Your task to perform on an android device: Search for pizza restaurants on Maps Image 0: 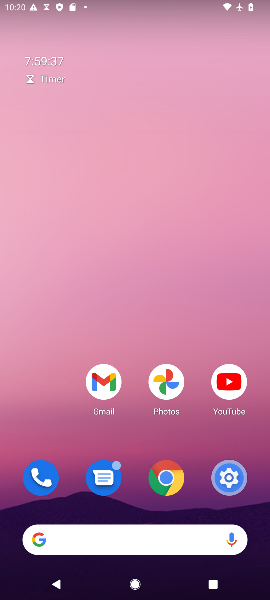
Step 0: drag from (205, 443) to (186, 51)
Your task to perform on an android device: Search for pizza restaurants on Maps Image 1: 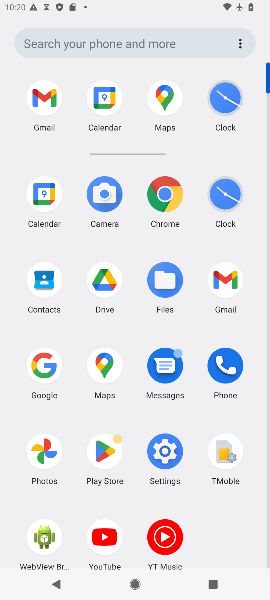
Step 1: click (103, 370)
Your task to perform on an android device: Search for pizza restaurants on Maps Image 2: 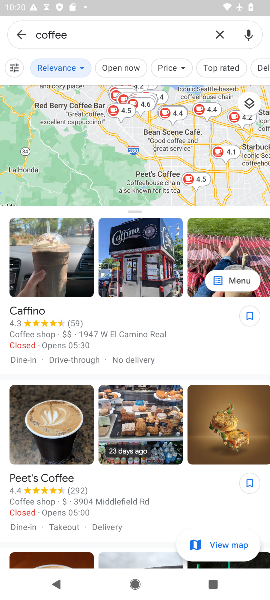
Step 2: click (220, 37)
Your task to perform on an android device: Search for pizza restaurants on Maps Image 3: 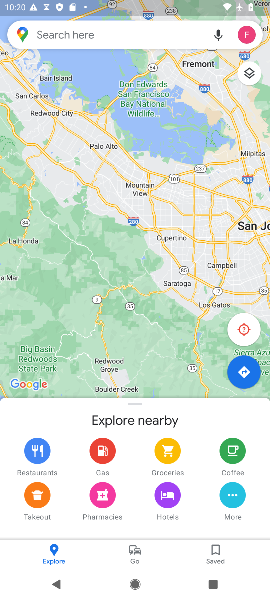
Step 3: click (64, 39)
Your task to perform on an android device: Search for pizza restaurants on Maps Image 4: 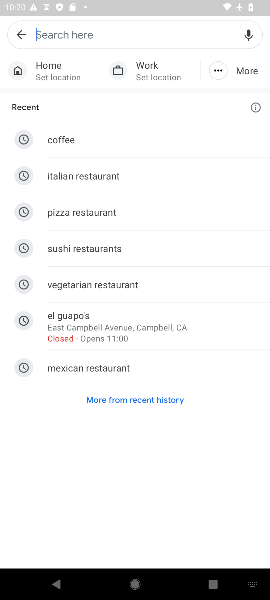
Step 4: click (130, 213)
Your task to perform on an android device: Search for pizza restaurants on Maps Image 5: 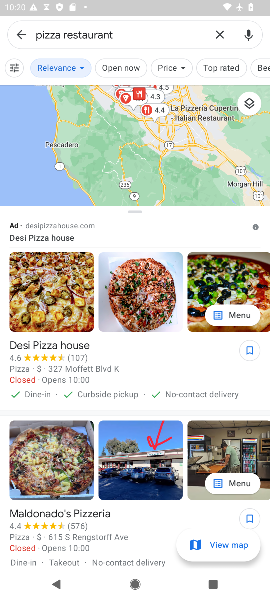
Step 5: task complete